Your task to perform on an android device: Search for flights from Mexico city to Seattle Image 0: 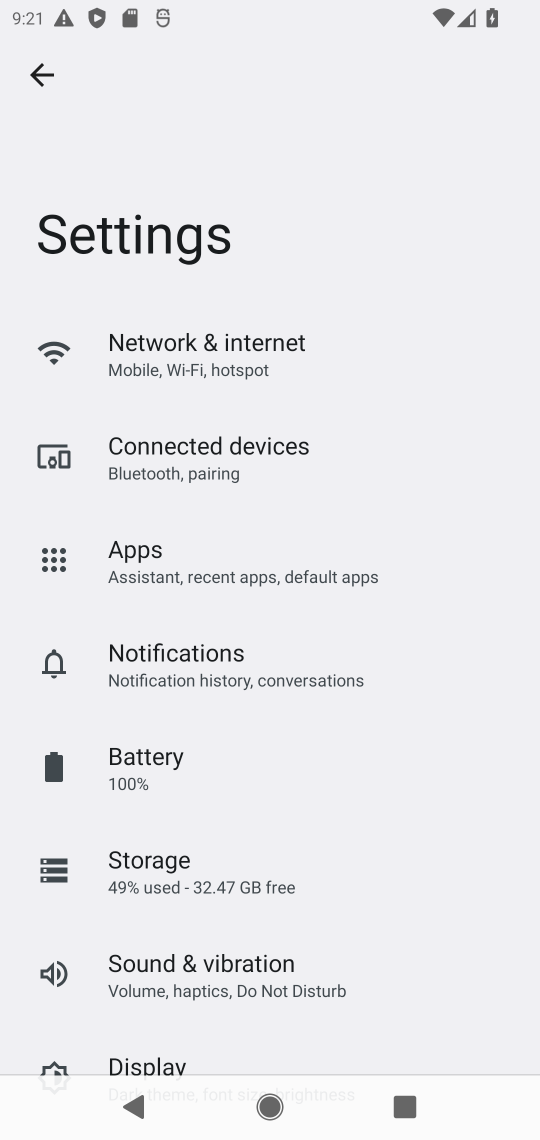
Step 0: press home button
Your task to perform on an android device: Search for flights from Mexico city to Seattle Image 1: 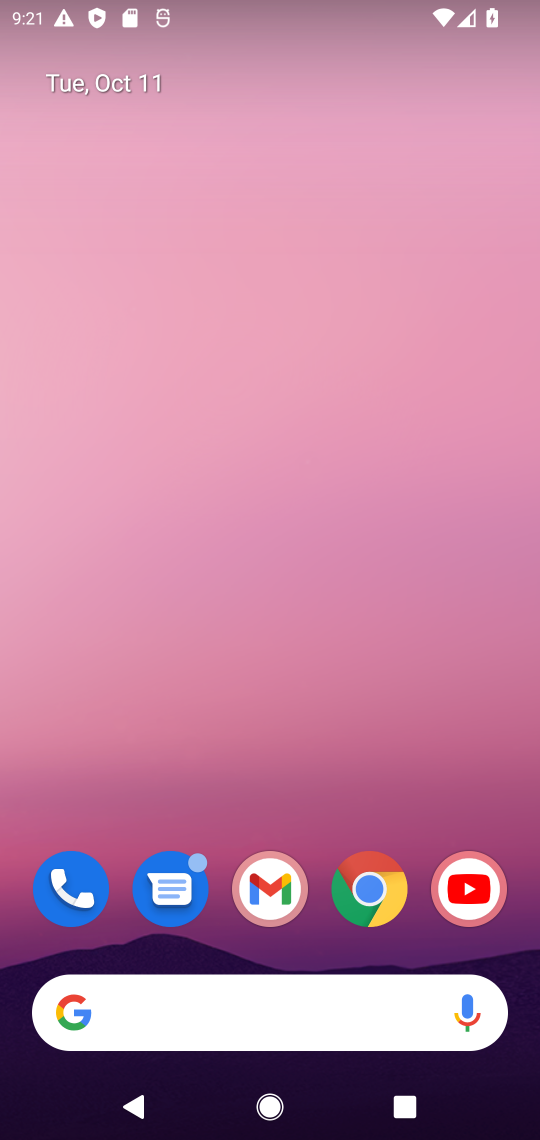
Step 1: click (267, 1000)
Your task to perform on an android device: Search for flights from Mexico city to Seattle Image 2: 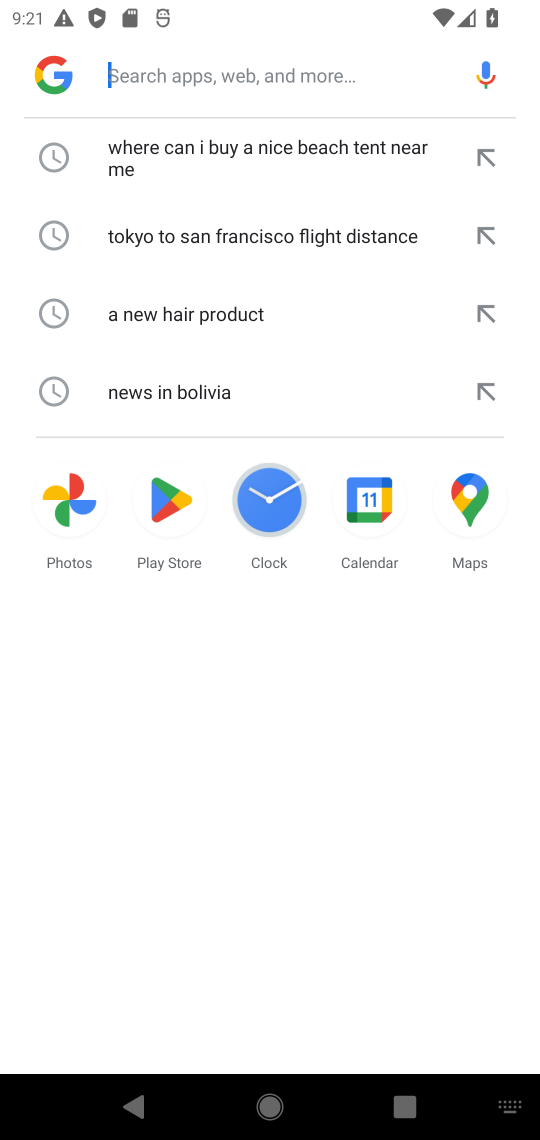
Step 2: type "Search for flights from Mexico city to Seattle"
Your task to perform on an android device: Search for flights from Mexico city to Seattle Image 3: 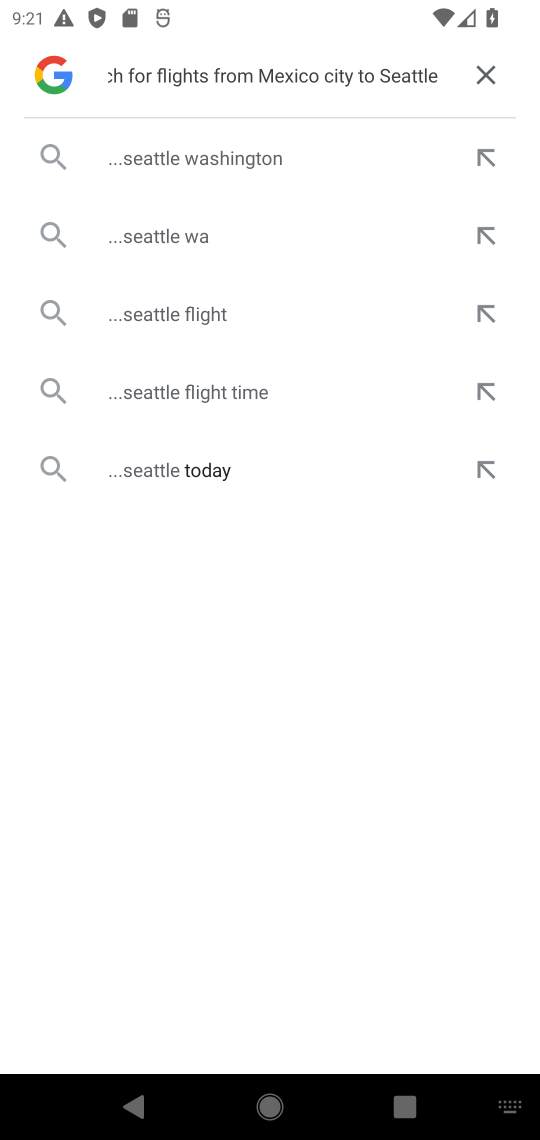
Step 3: click (169, 308)
Your task to perform on an android device: Search for flights from Mexico city to Seattle Image 4: 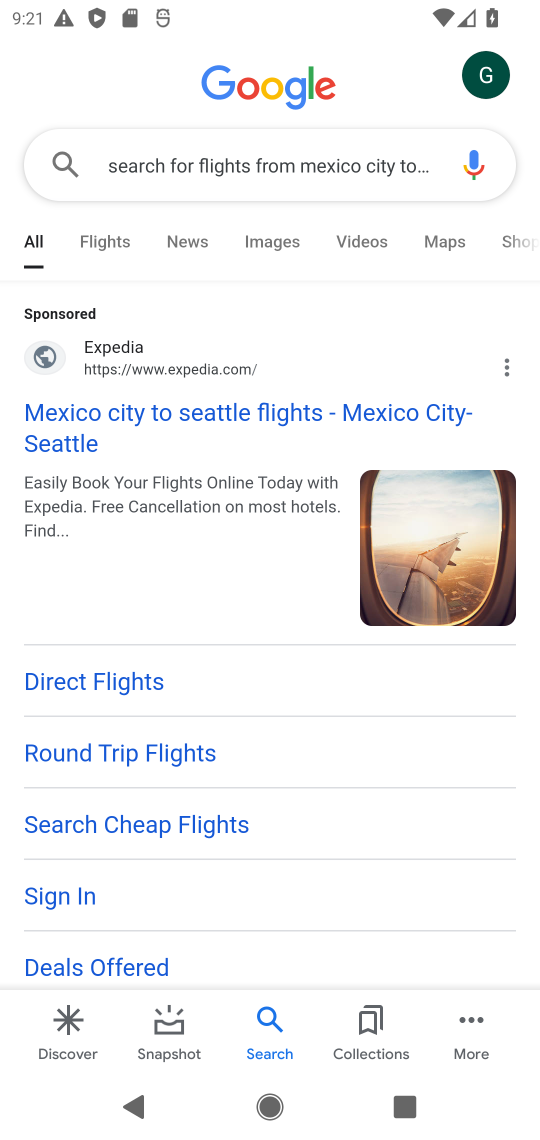
Step 4: click (191, 413)
Your task to perform on an android device: Search for flights from Mexico city to Seattle Image 5: 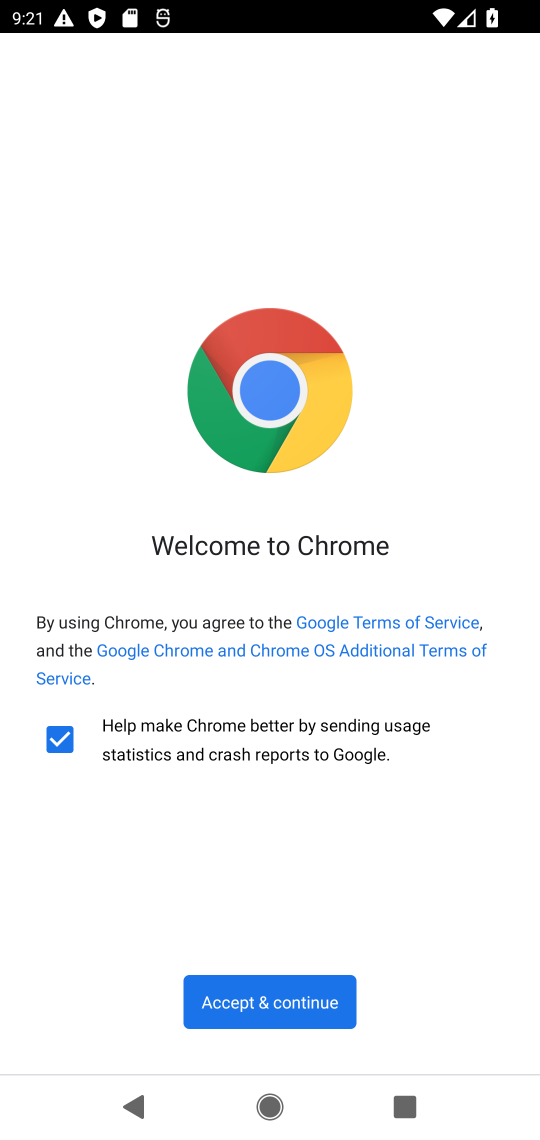
Step 5: click (293, 1006)
Your task to perform on an android device: Search for flights from Mexico city to Seattle Image 6: 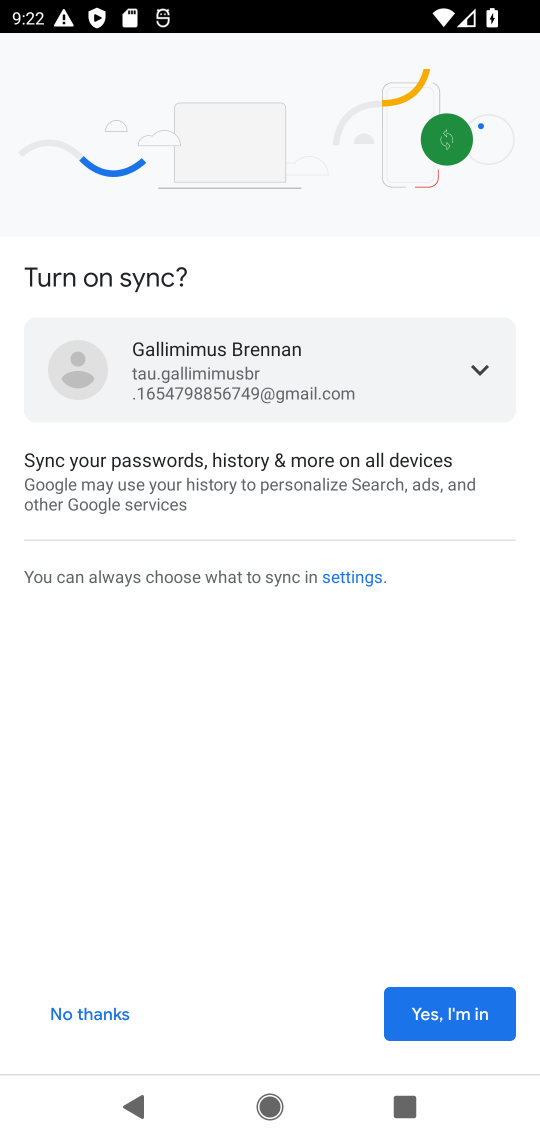
Step 6: click (422, 1016)
Your task to perform on an android device: Search for flights from Mexico city to Seattle Image 7: 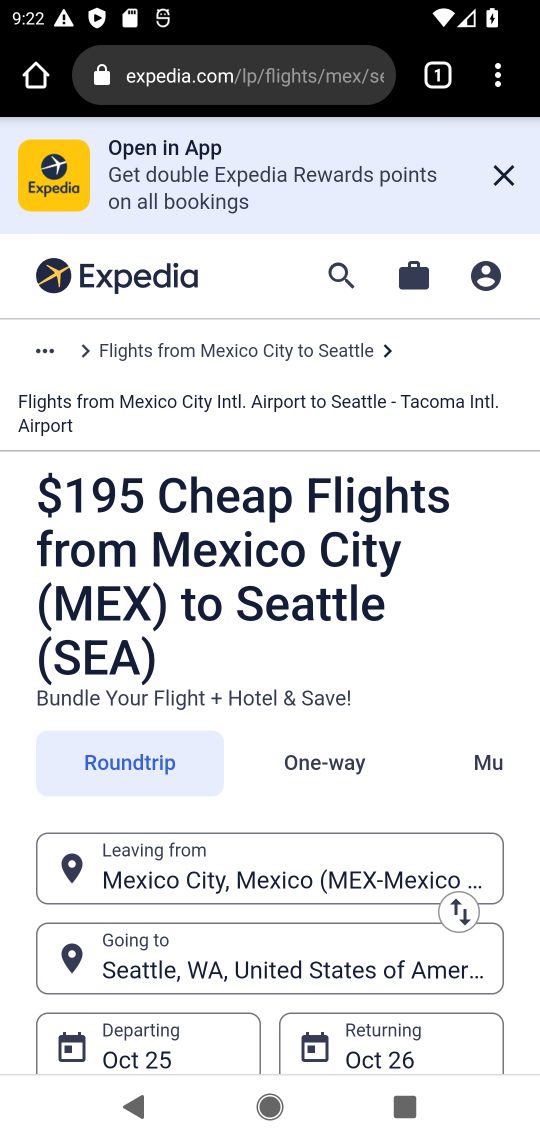
Step 7: drag from (483, 650) to (468, 375)
Your task to perform on an android device: Search for flights from Mexico city to Seattle Image 8: 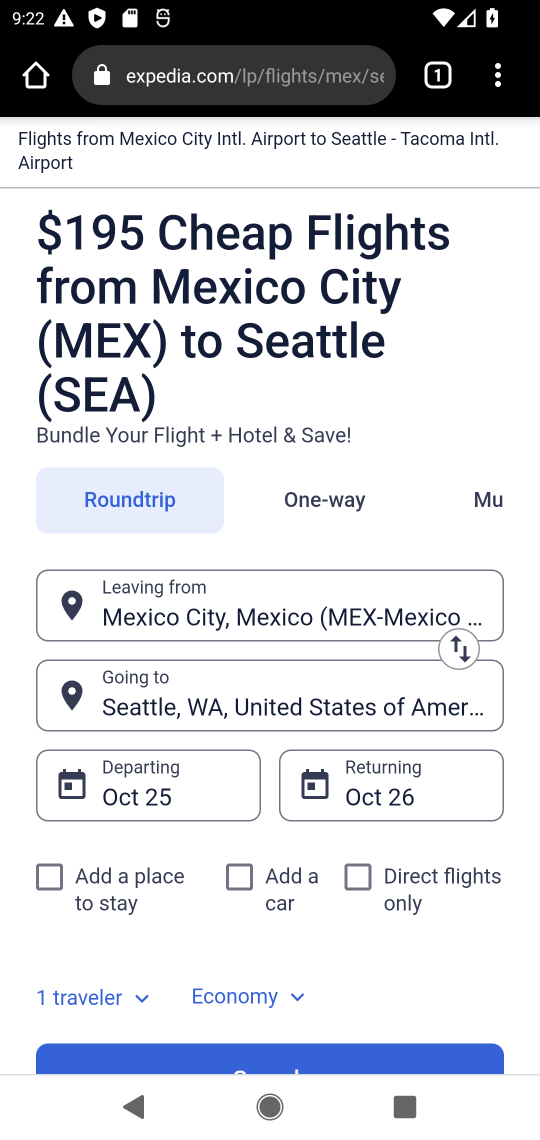
Step 8: drag from (498, 973) to (501, 700)
Your task to perform on an android device: Search for flights from Mexico city to Seattle Image 9: 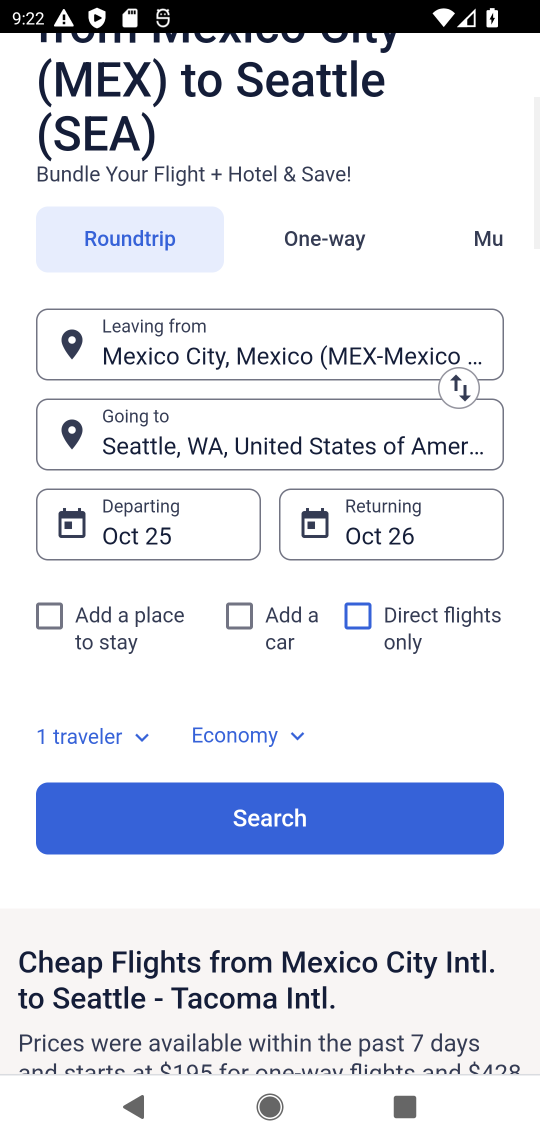
Step 9: click (248, 811)
Your task to perform on an android device: Search for flights from Mexico city to Seattle Image 10: 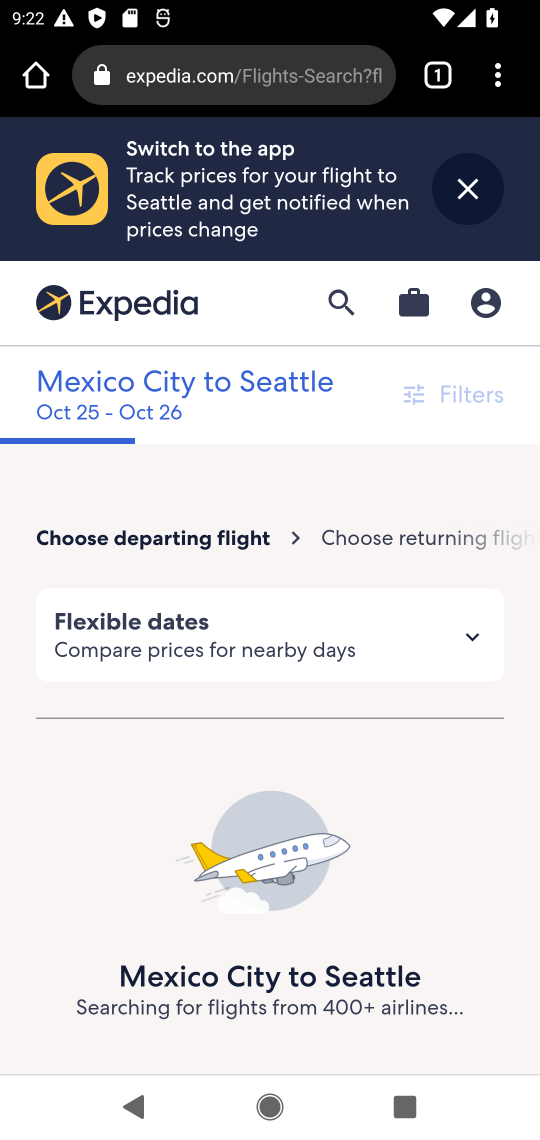
Step 10: task complete